Your task to perform on an android device: open app "Adobe Express: Graphic Design" Image 0: 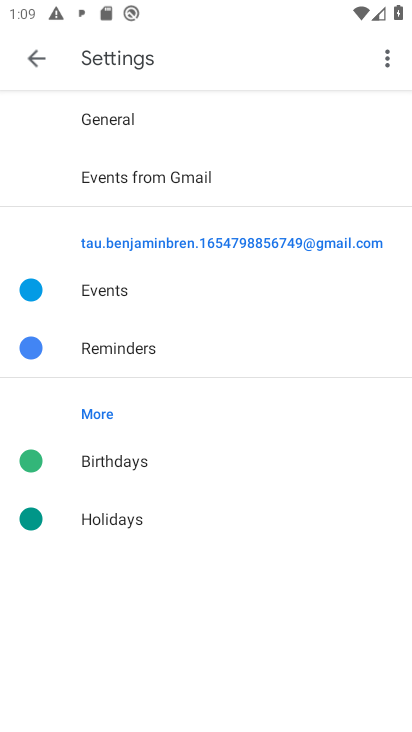
Step 0: press home button
Your task to perform on an android device: open app "Adobe Express: Graphic Design" Image 1: 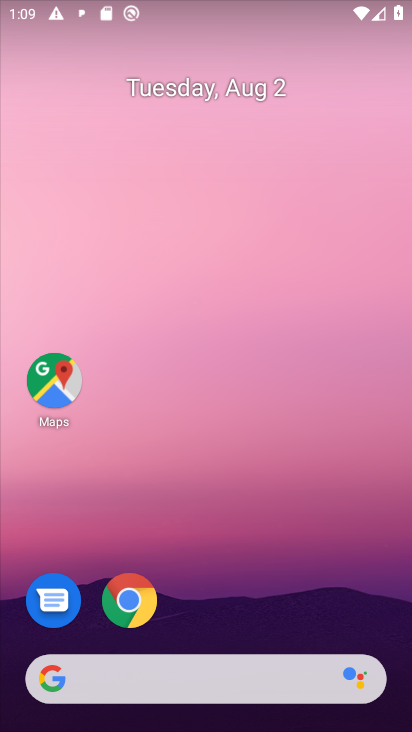
Step 1: drag from (183, 591) to (180, 211)
Your task to perform on an android device: open app "Adobe Express: Graphic Design" Image 2: 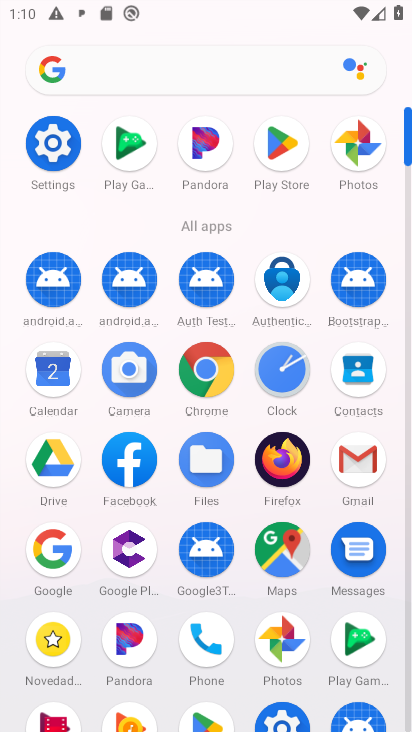
Step 2: click (279, 142)
Your task to perform on an android device: open app "Adobe Express: Graphic Design" Image 3: 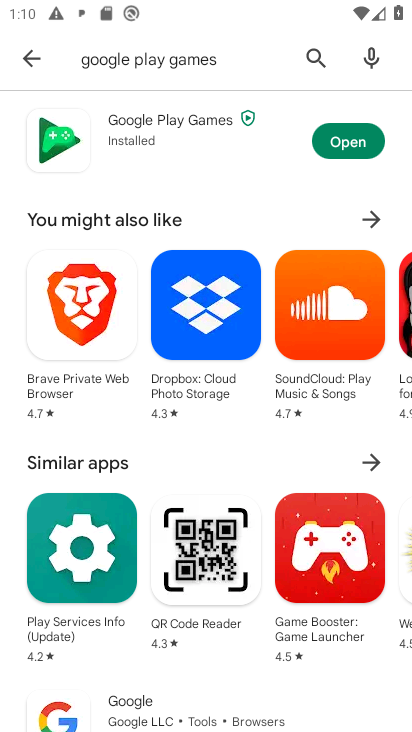
Step 3: click (315, 60)
Your task to perform on an android device: open app "Adobe Express: Graphic Design" Image 4: 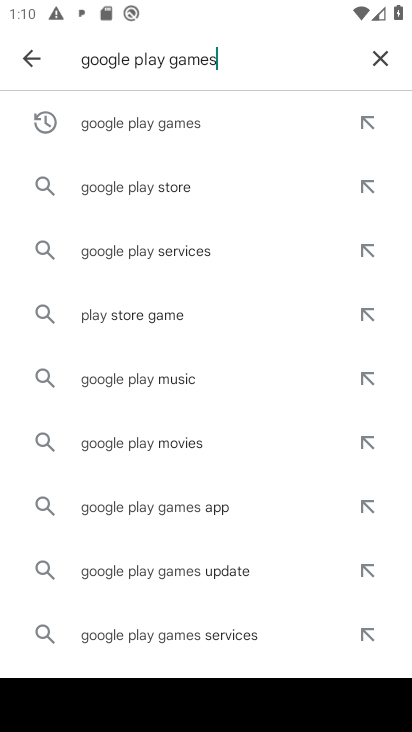
Step 4: click (377, 61)
Your task to perform on an android device: open app "Adobe Express: Graphic Design" Image 5: 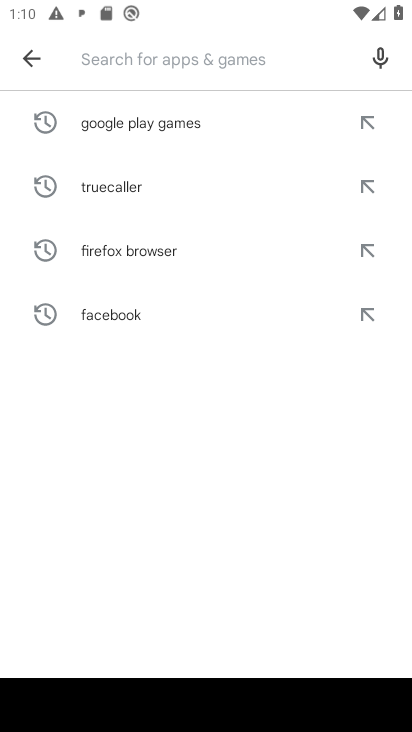
Step 5: type "Adobe Express: Graphic Design"
Your task to perform on an android device: open app "Adobe Express: Graphic Design" Image 6: 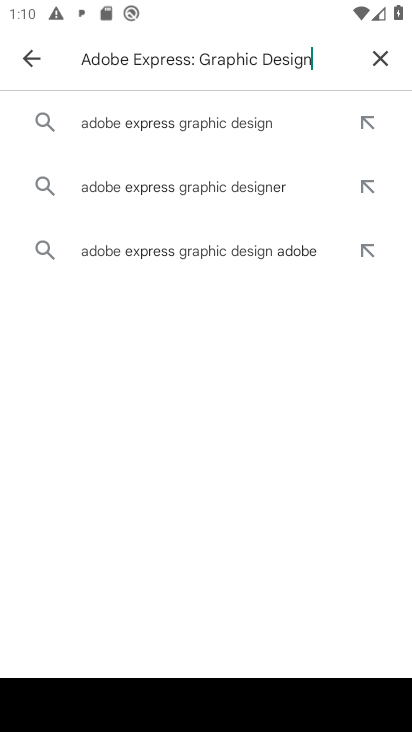
Step 6: click (121, 130)
Your task to perform on an android device: open app "Adobe Express: Graphic Design" Image 7: 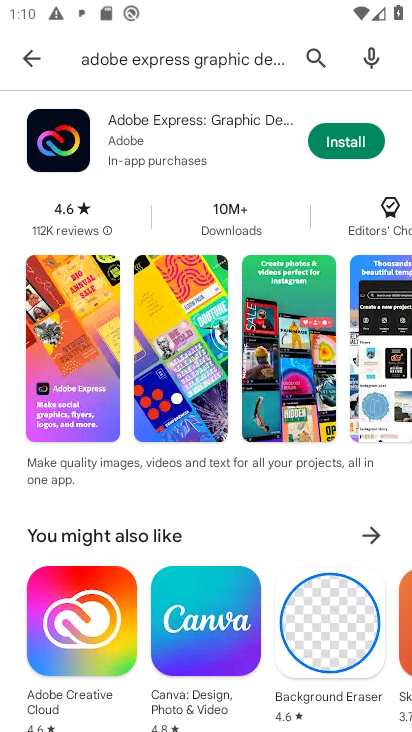
Step 7: click (350, 142)
Your task to perform on an android device: open app "Adobe Express: Graphic Design" Image 8: 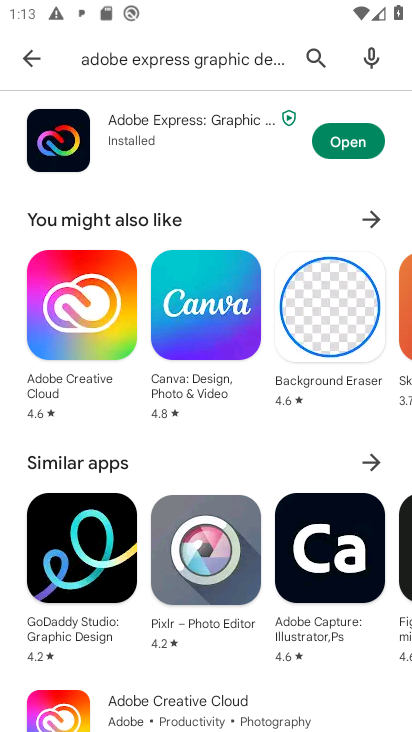
Step 8: click (341, 137)
Your task to perform on an android device: open app "Adobe Express: Graphic Design" Image 9: 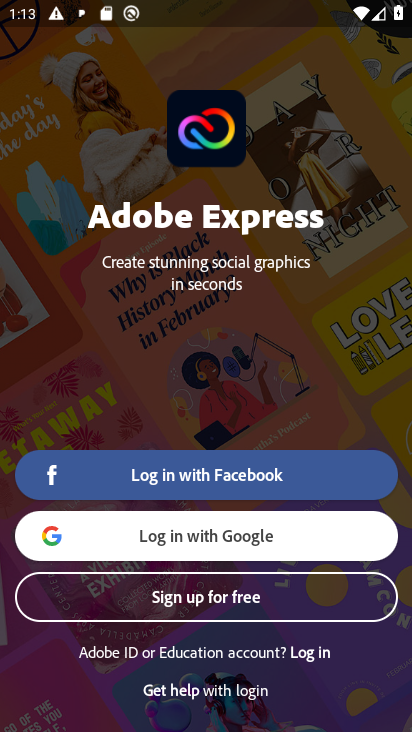
Step 9: task complete